Your task to perform on an android device: Open the calendar and show me this week's events? Image 0: 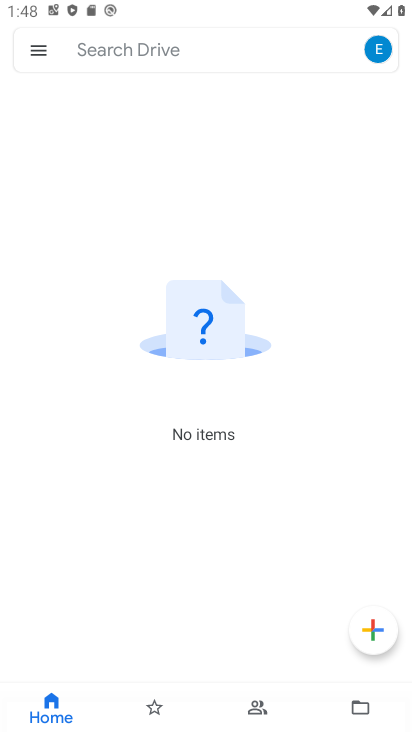
Step 0: press home button
Your task to perform on an android device: Open the calendar and show me this week's events? Image 1: 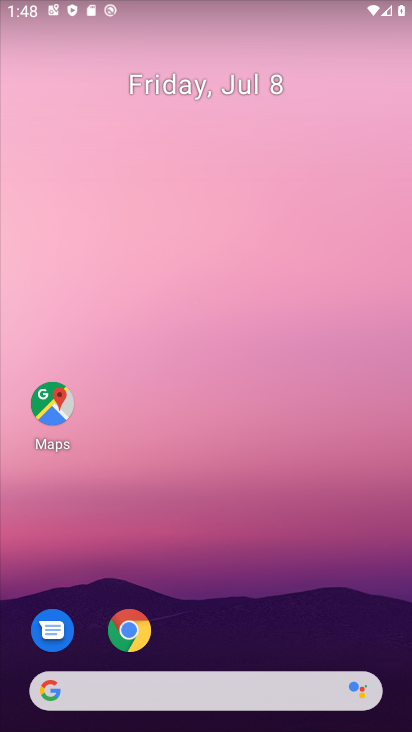
Step 1: drag from (210, 642) to (196, 65)
Your task to perform on an android device: Open the calendar and show me this week's events? Image 2: 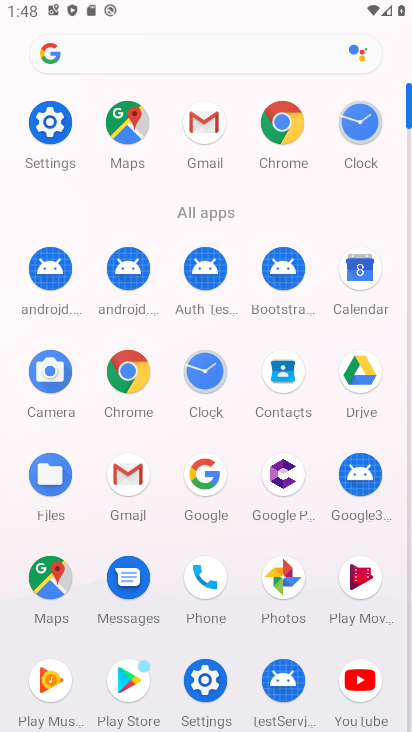
Step 2: click (369, 257)
Your task to perform on an android device: Open the calendar and show me this week's events? Image 3: 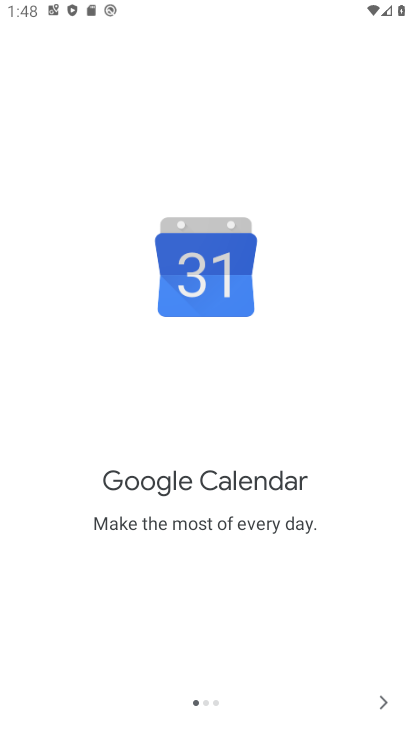
Step 3: click (380, 708)
Your task to perform on an android device: Open the calendar and show me this week's events? Image 4: 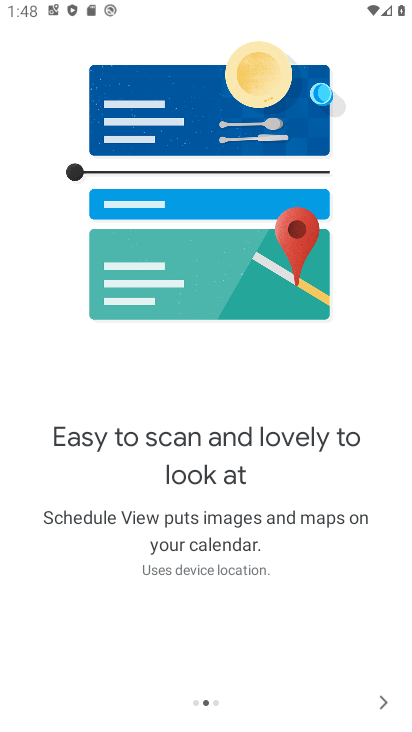
Step 4: click (380, 708)
Your task to perform on an android device: Open the calendar and show me this week's events? Image 5: 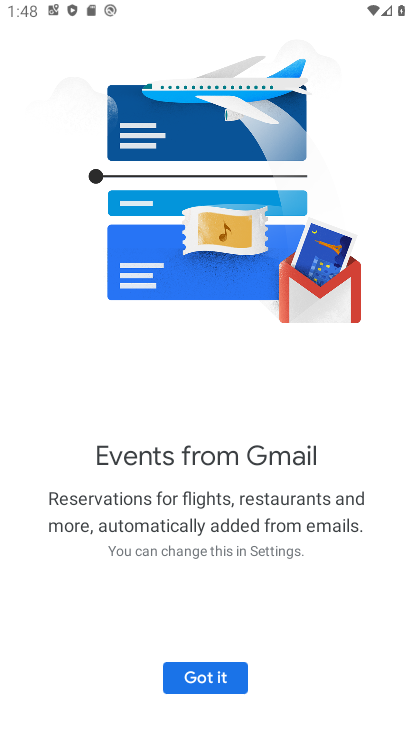
Step 5: click (199, 670)
Your task to perform on an android device: Open the calendar and show me this week's events? Image 6: 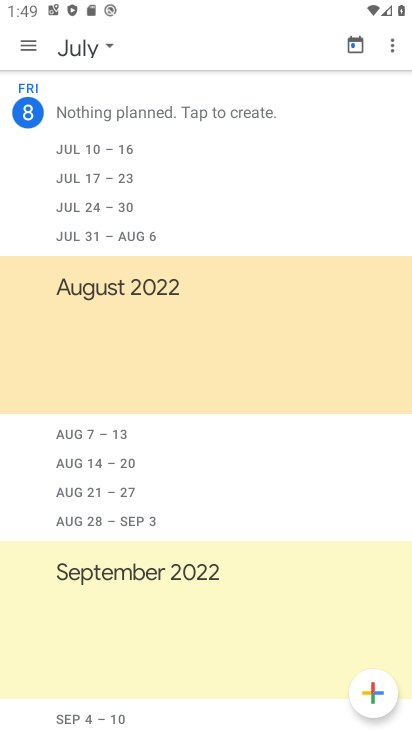
Step 6: click (25, 40)
Your task to perform on an android device: Open the calendar and show me this week's events? Image 7: 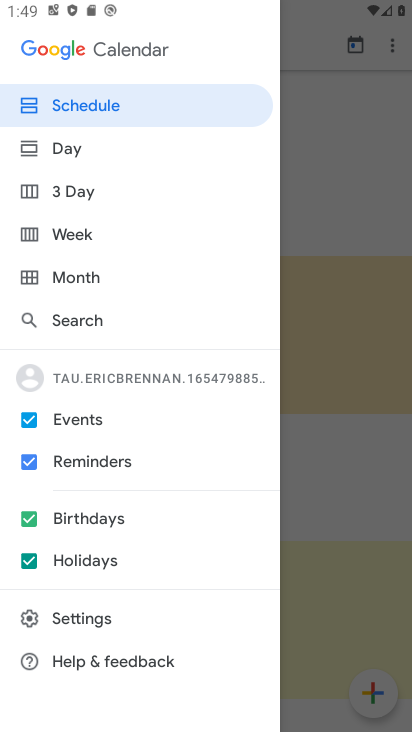
Step 7: click (88, 230)
Your task to perform on an android device: Open the calendar and show me this week's events? Image 8: 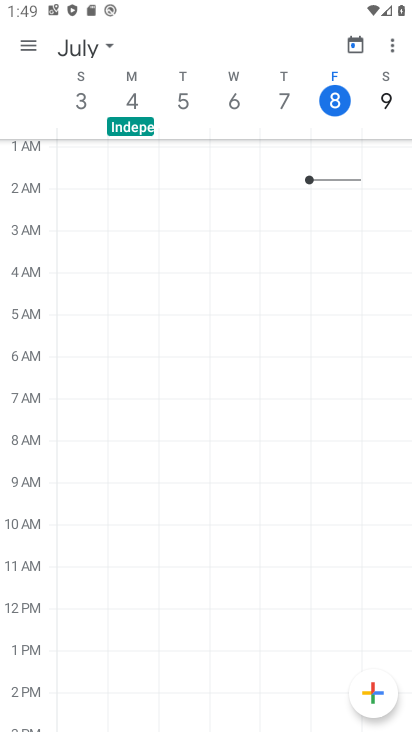
Step 8: task complete